Your task to perform on an android device: Open Chrome and go to the settings page Image 0: 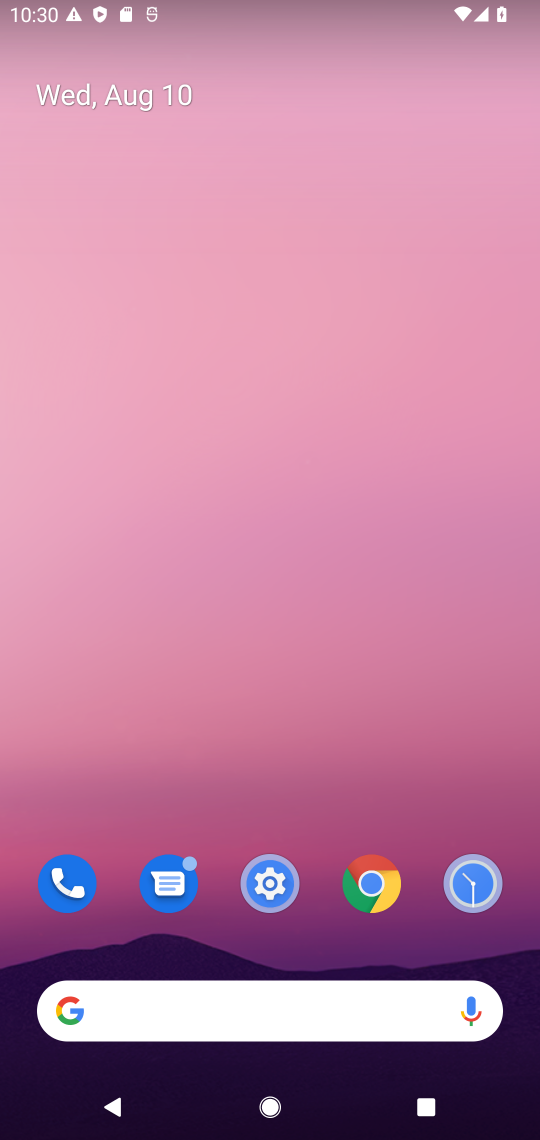
Step 0: drag from (346, 851) to (321, 103)
Your task to perform on an android device: Open Chrome and go to the settings page Image 1: 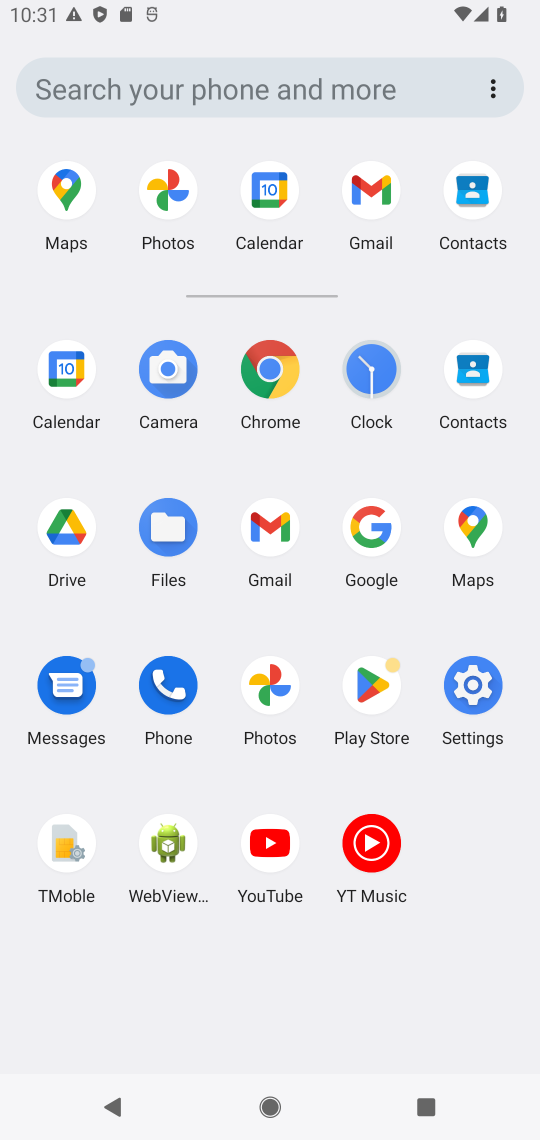
Step 1: click (473, 681)
Your task to perform on an android device: Open Chrome and go to the settings page Image 2: 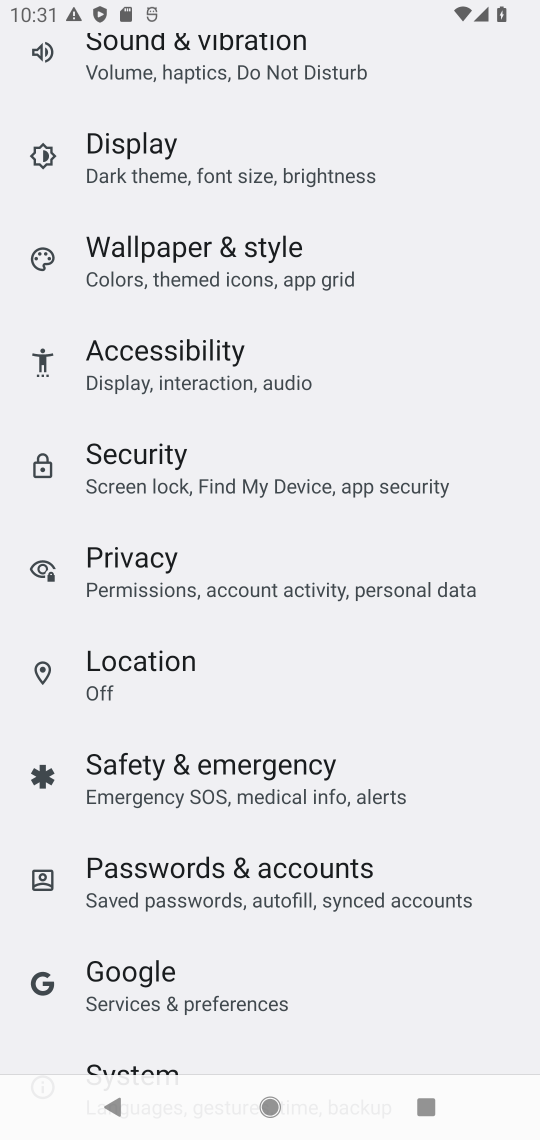
Step 2: press home button
Your task to perform on an android device: Open Chrome and go to the settings page Image 3: 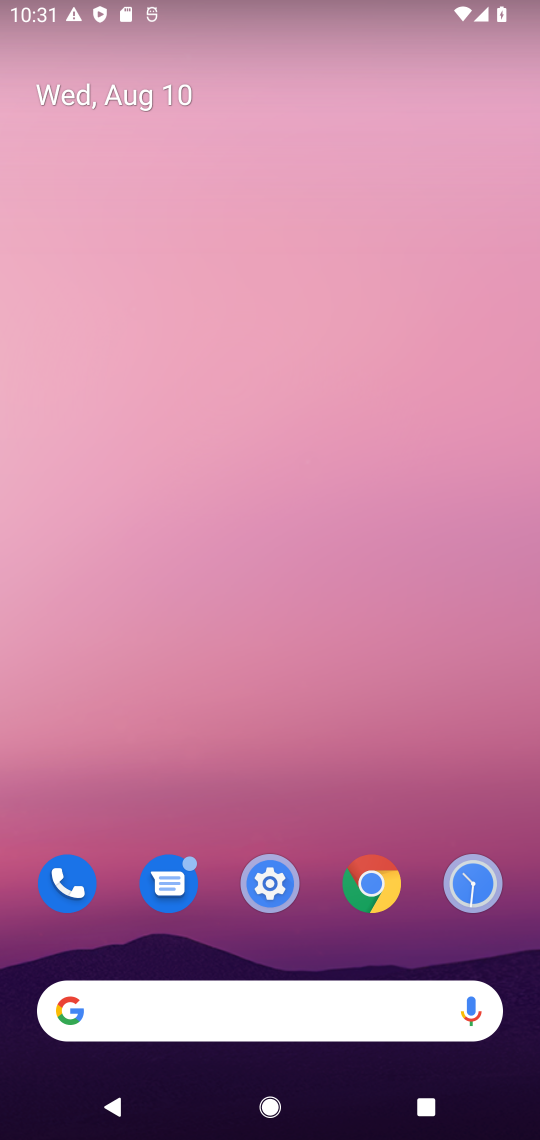
Step 3: drag from (367, 831) to (348, 259)
Your task to perform on an android device: Open Chrome and go to the settings page Image 4: 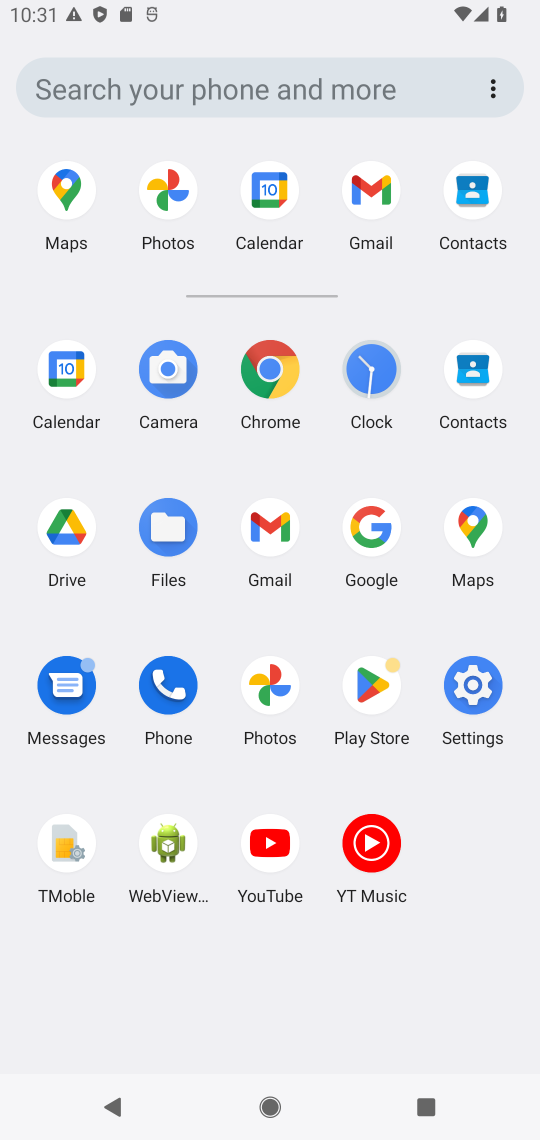
Step 4: click (268, 355)
Your task to perform on an android device: Open Chrome and go to the settings page Image 5: 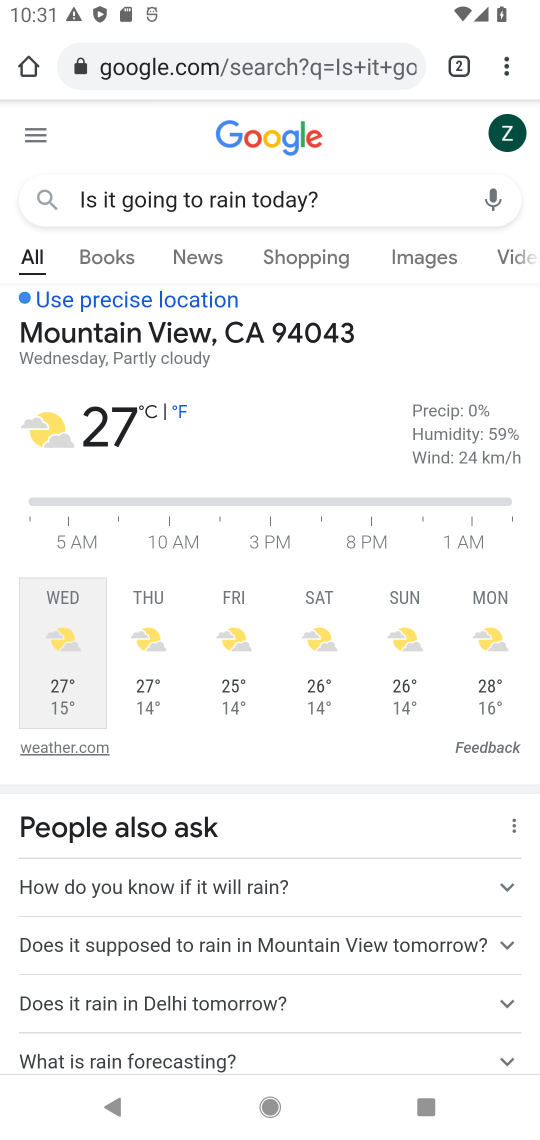
Step 5: task complete